Your task to perform on an android device: toggle improve location accuracy Image 0: 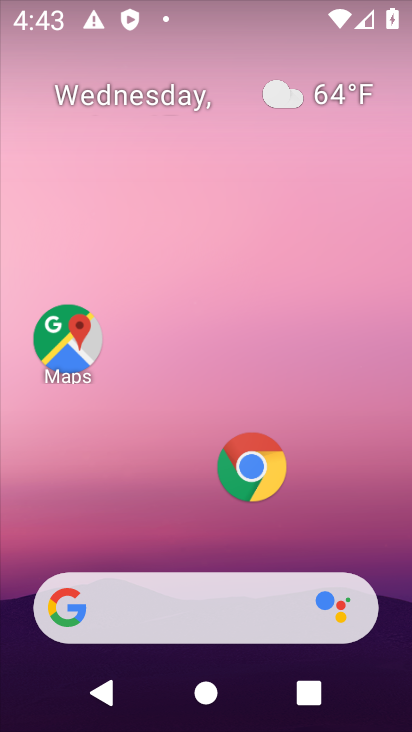
Step 0: drag from (211, 463) to (281, 167)
Your task to perform on an android device: toggle improve location accuracy Image 1: 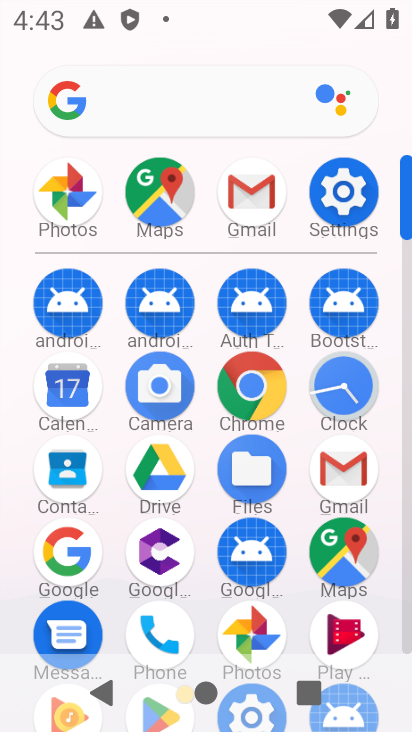
Step 1: click (336, 184)
Your task to perform on an android device: toggle improve location accuracy Image 2: 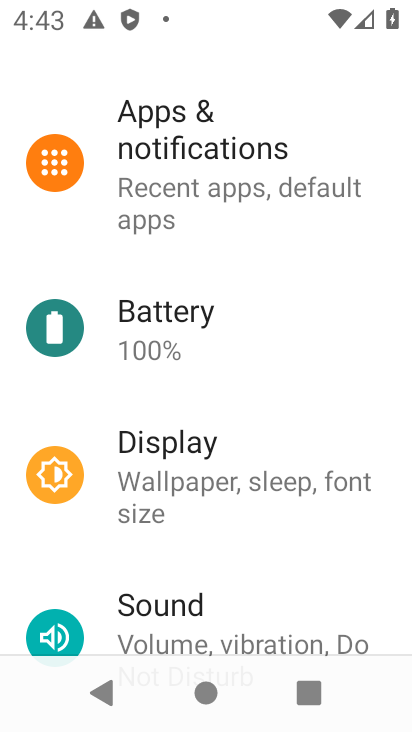
Step 2: task complete